Your task to perform on an android device: remove spam from my inbox in the gmail app Image 0: 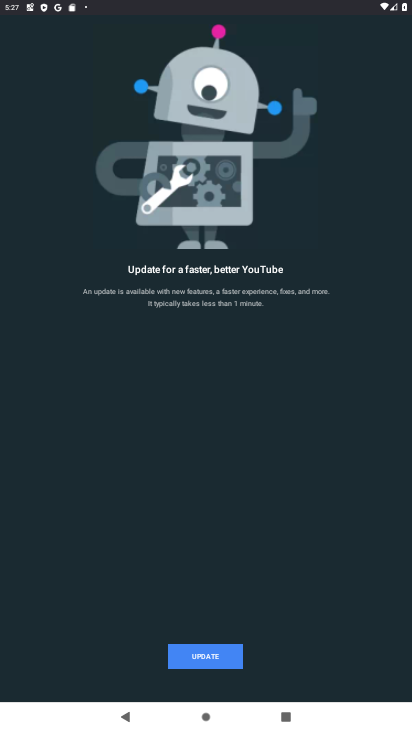
Step 0: press home button
Your task to perform on an android device: remove spam from my inbox in the gmail app Image 1: 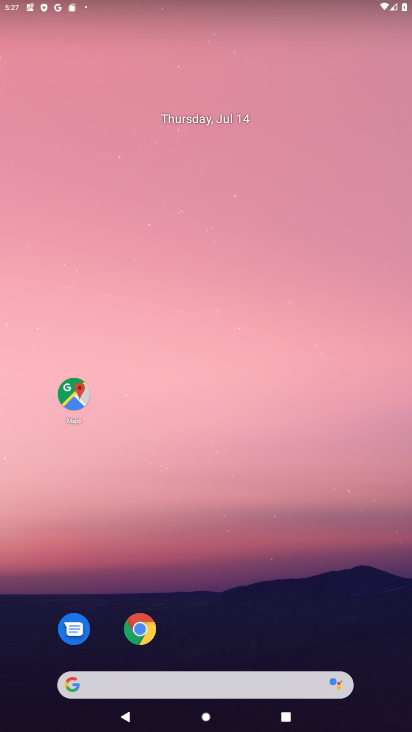
Step 1: drag from (219, 613) to (235, 30)
Your task to perform on an android device: remove spam from my inbox in the gmail app Image 2: 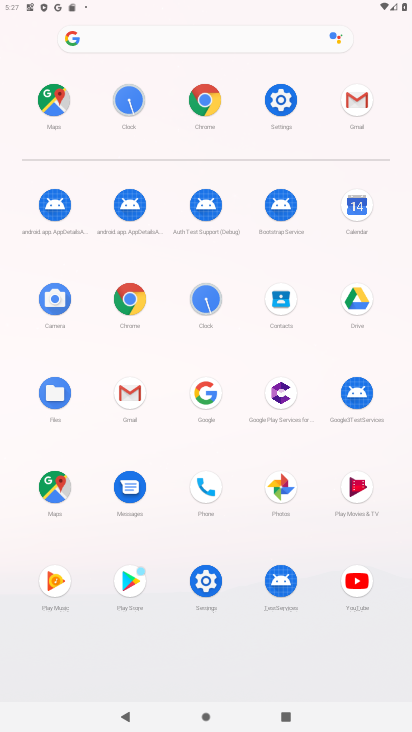
Step 2: click (135, 384)
Your task to perform on an android device: remove spam from my inbox in the gmail app Image 3: 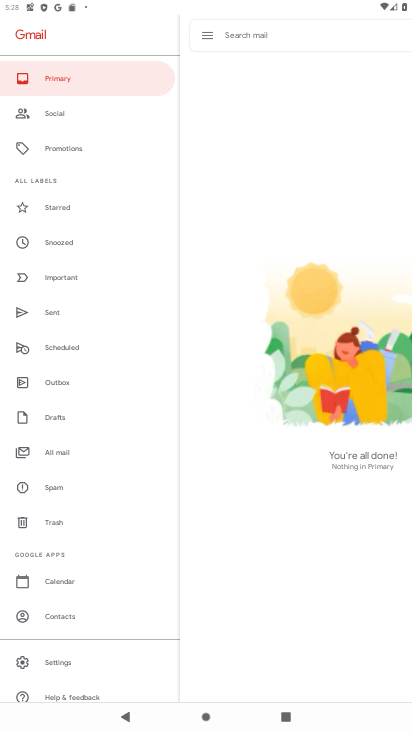
Step 3: click (67, 486)
Your task to perform on an android device: remove spam from my inbox in the gmail app Image 4: 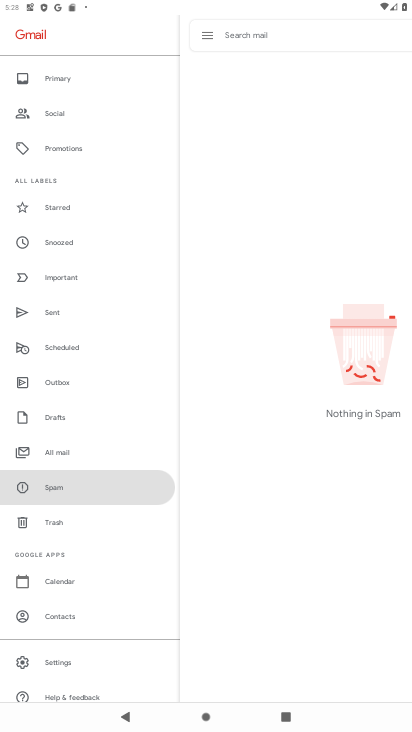
Step 4: task complete